Your task to perform on an android device: Go to Reddit.com Image 0: 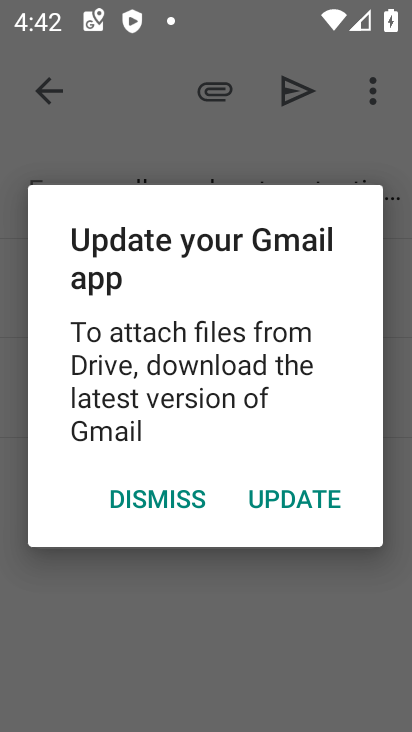
Step 0: press back button
Your task to perform on an android device: Go to Reddit.com Image 1: 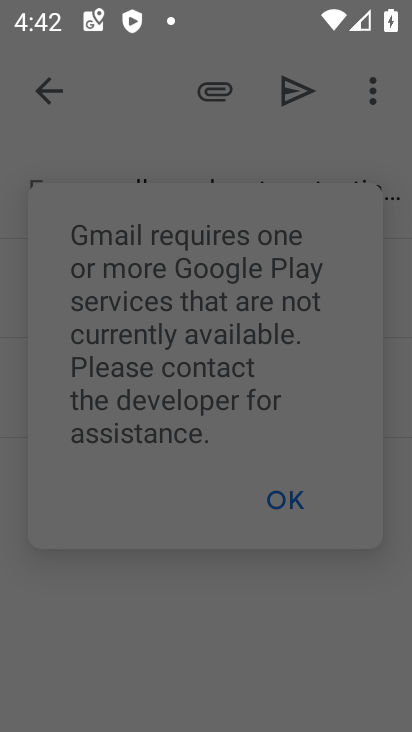
Step 1: press home button
Your task to perform on an android device: Go to Reddit.com Image 2: 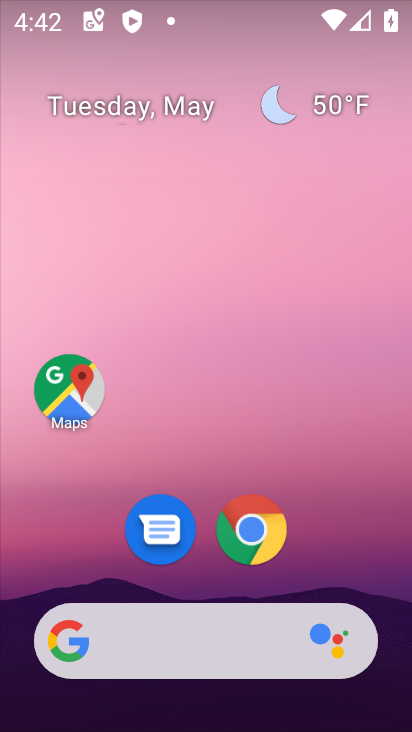
Step 2: drag from (339, 544) to (172, 48)
Your task to perform on an android device: Go to Reddit.com Image 3: 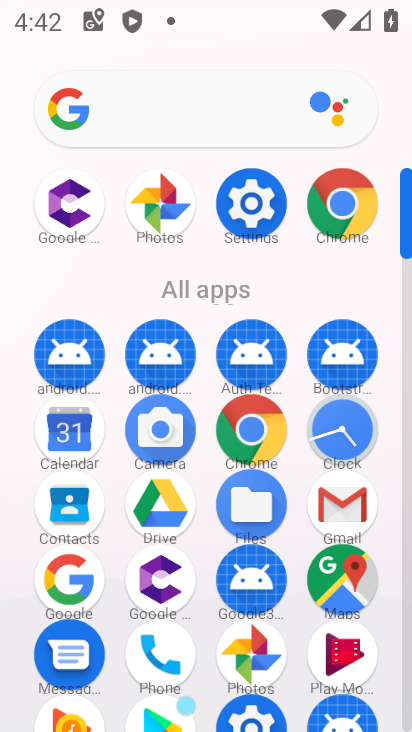
Step 3: click (341, 195)
Your task to perform on an android device: Go to Reddit.com Image 4: 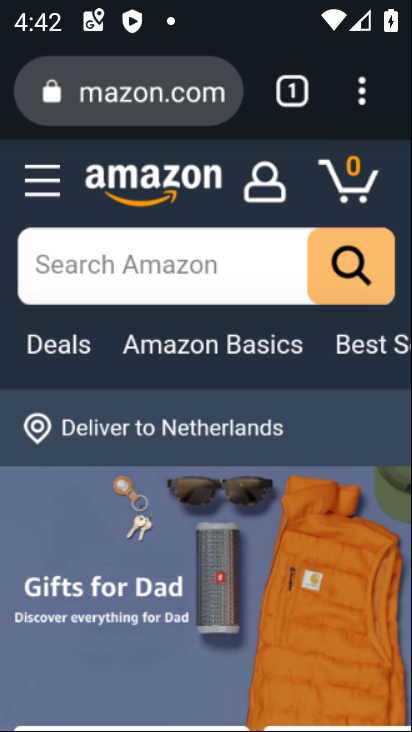
Step 4: click (141, 101)
Your task to perform on an android device: Go to Reddit.com Image 5: 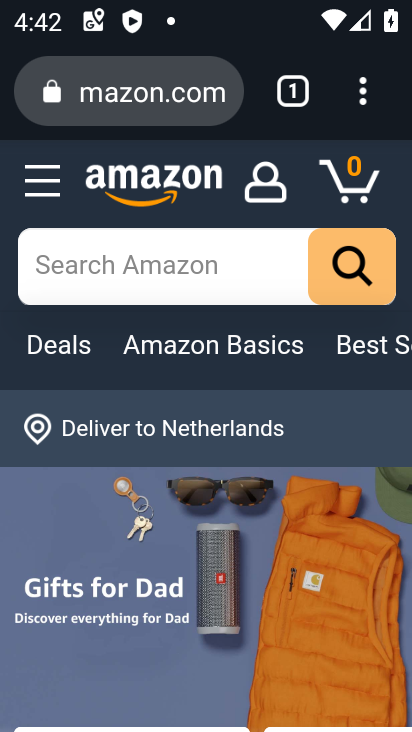
Step 5: click (152, 86)
Your task to perform on an android device: Go to Reddit.com Image 6: 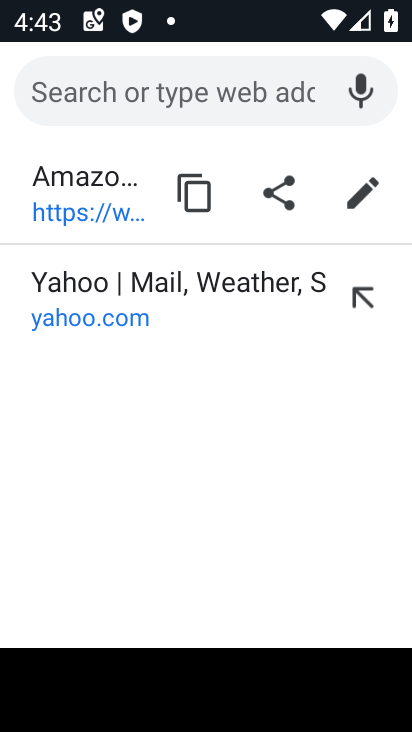
Step 6: type "Reddit.com"
Your task to perform on an android device: Go to Reddit.com Image 7: 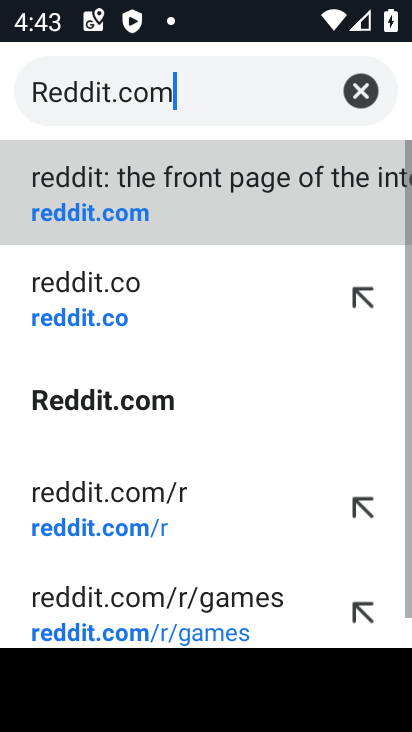
Step 7: type ""
Your task to perform on an android device: Go to Reddit.com Image 8: 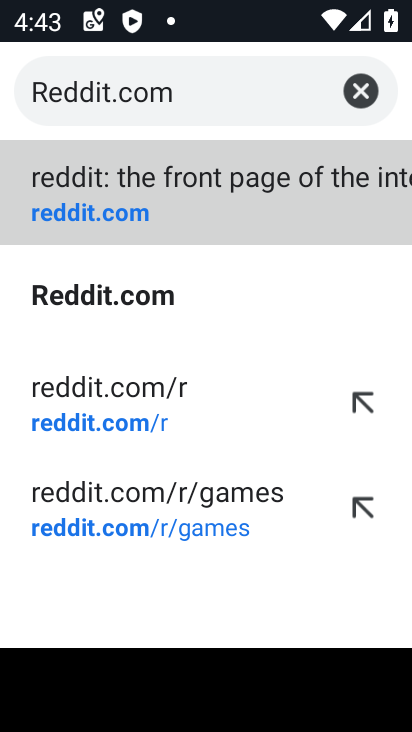
Step 8: click (179, 181)
Your task to perform on an android device: Go to Reddit.com Image 9: 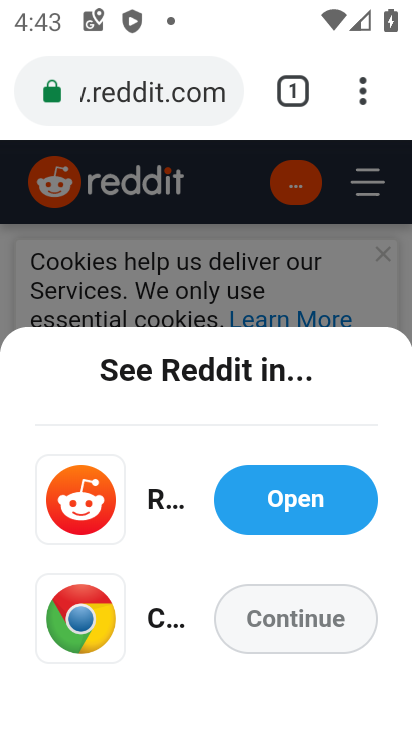
Step 9: task complete